Your task to perform on an android device: Open location settings Image 0: 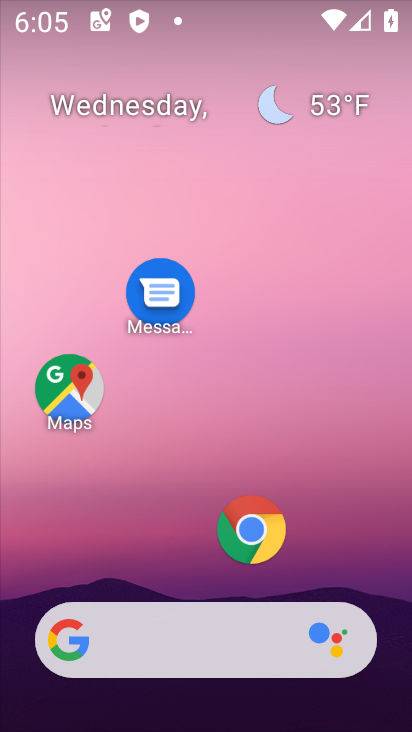
Step 0: drag from (200, 571) to (237, 98)
Your task to perform on an android device: Open location settings Image 1: 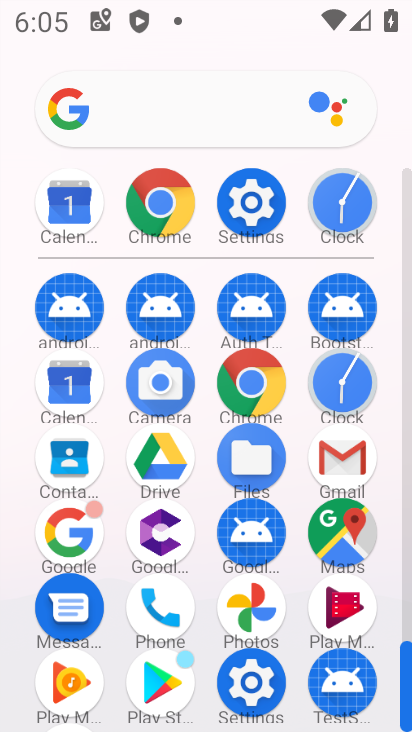
Step 1: click (261, 211)
Your task to perform on an android device: Open location settings Image 2: 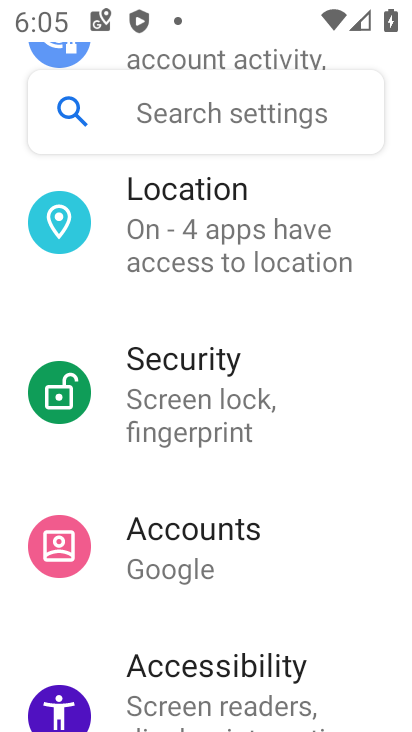
Step 2: click (227, 271)
Your task to perform on an android device: Open location settings Image 3: 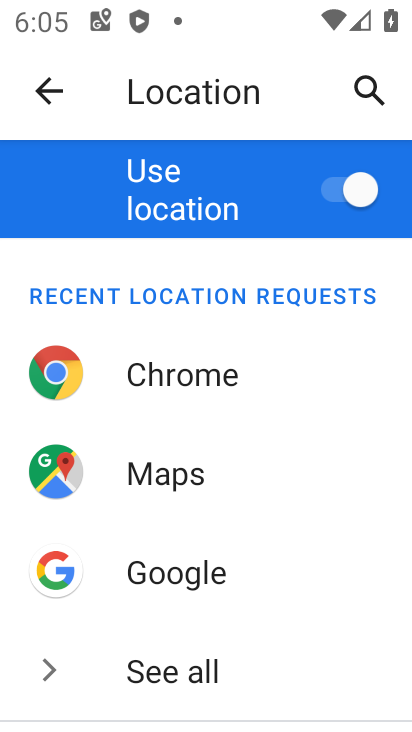
Step 3: task complete